Your task to perform on an android device: open a new tab in the chrome app Image 0: 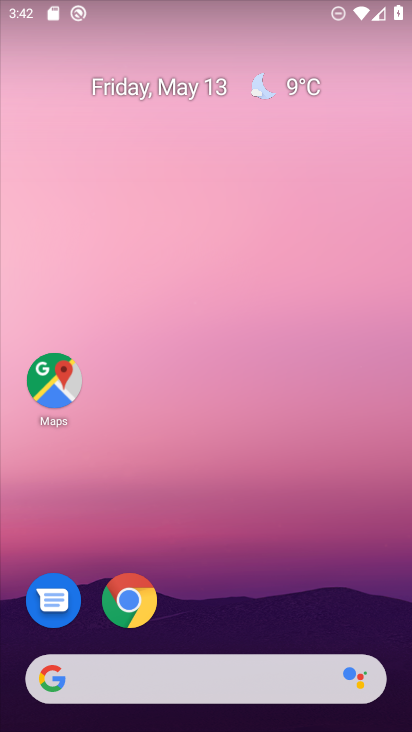
Step 0: drag from (195, 630) to (305, 168)
Your task to perform on an android device: open a new tab in the chrome app Image 1: 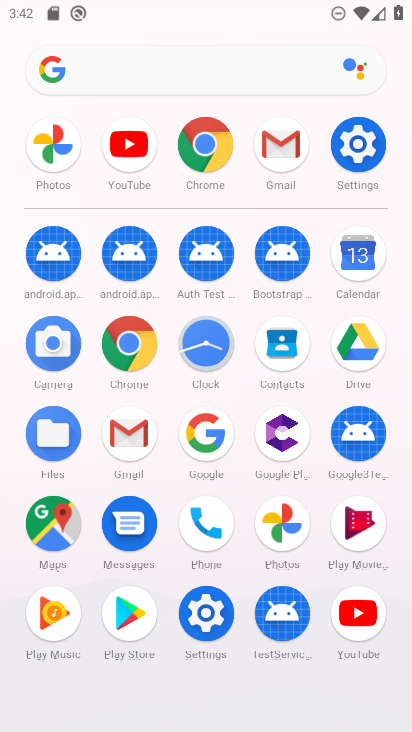
Step 1: click (127, 341)
Your task to perform on an android device: open a new tab in the chrome app Image 2: 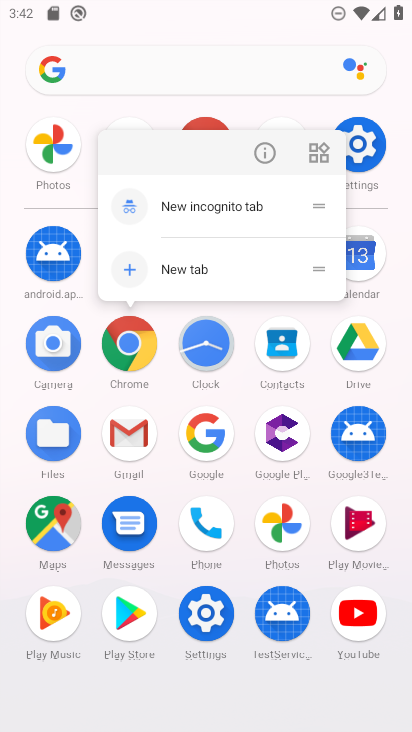
Step 2: click (164, 268)
Your task to perform on an android device: open a new tab in the chrome app Image 3: 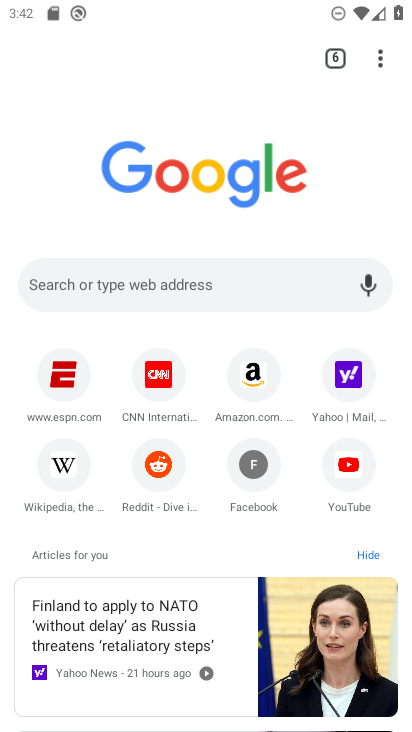
Step 3: task complete